Your task to perform on an android device: Search for vegetarian restaurants on Maps Image 0: 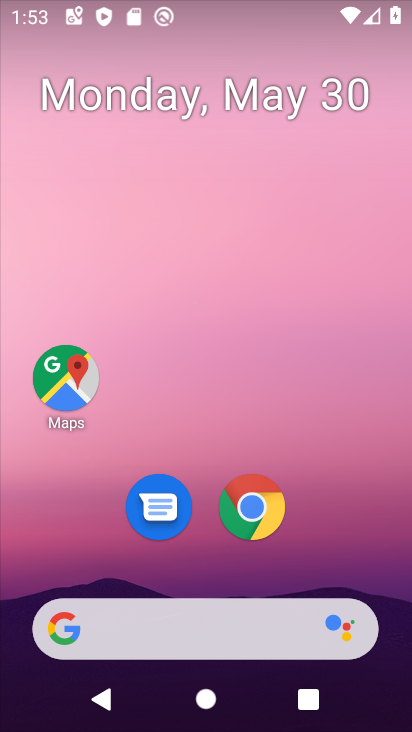
Step 0: click (59, 385)
Your task to perform on an android device: Search for vegetarian restaurants on Maps Image 1: 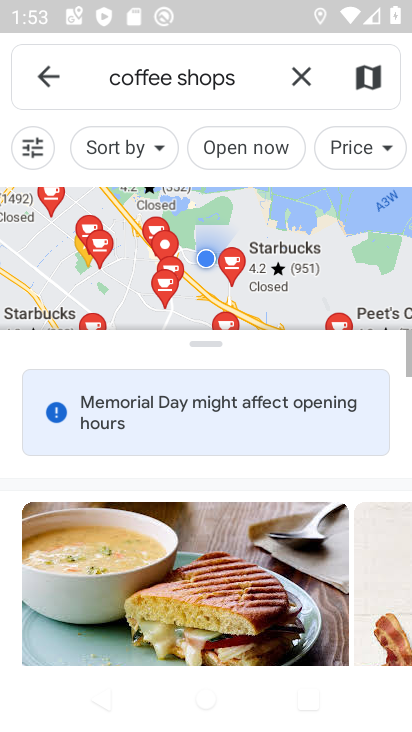
Step 1: click (302, 76)
Your task to perform on an android device: Search for vegetarian restaurants on Maps Image 2: 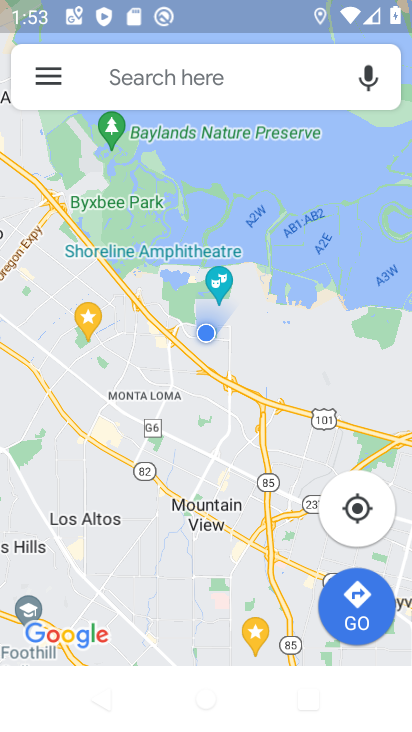
Step 2: click (239, 66)
Your task to perform on an android device: Search for vegetarian restaurants on Maps Image 3: 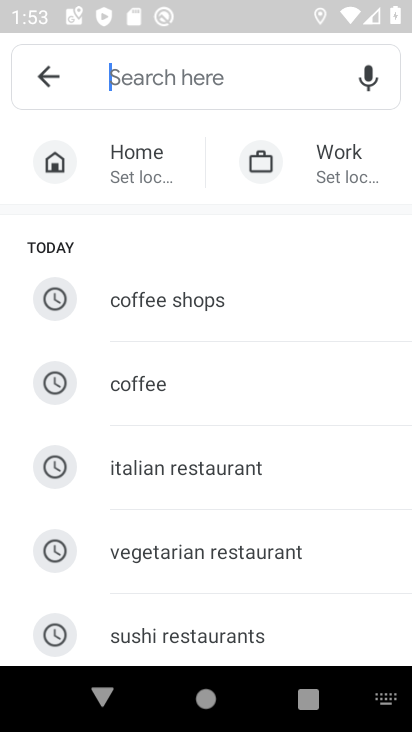
Step 3: click (231, 553)
Your task to perform on an android device: Search for vegetarian restaurants on Maps Image 4: 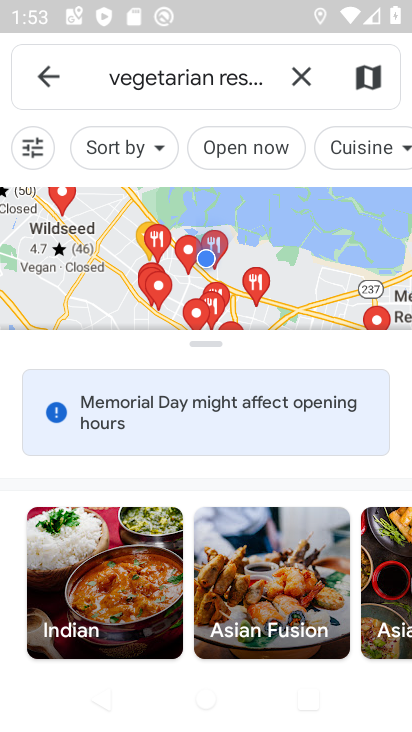
Step 4: task complete